Your task to perform on an android device: Open calendar and show me the third week of next month Image 0: 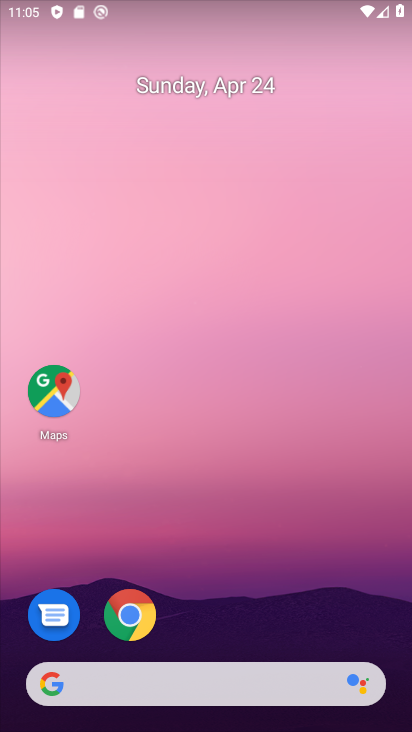
Step 0: drag from (211, 631) to (236, 77)
Your task to perform on an android device: Open calendar and show me the third week of next month Image 1: 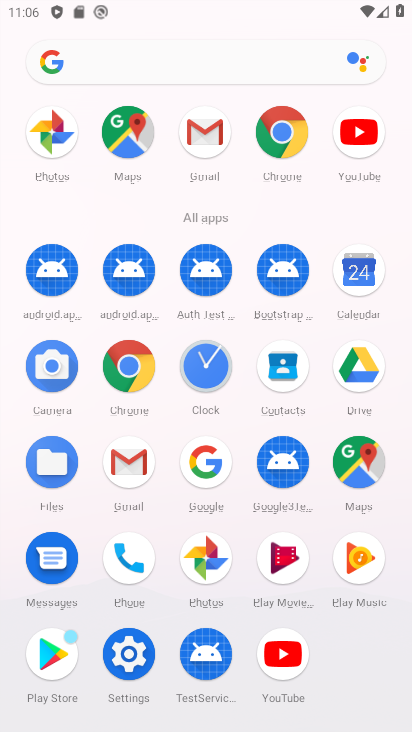
Step 1: click (358, 266)
Your task to perform on an android device: Open calendar and show me the third week of next month Image 2: 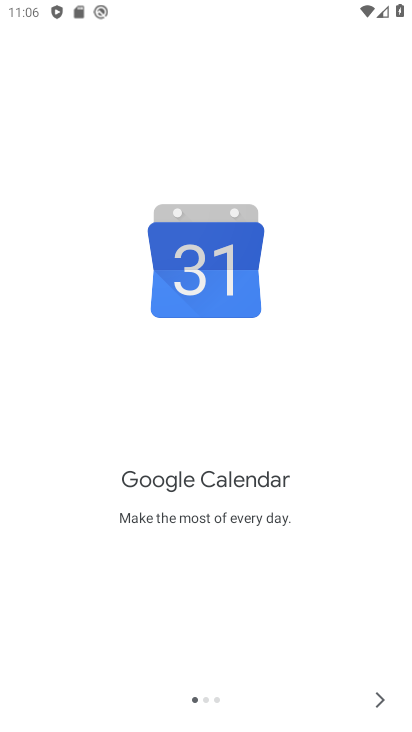
Step 2: click (373, 696)
Your task to perform on an android device: Open calendar and show me the third week of next month Image 3: 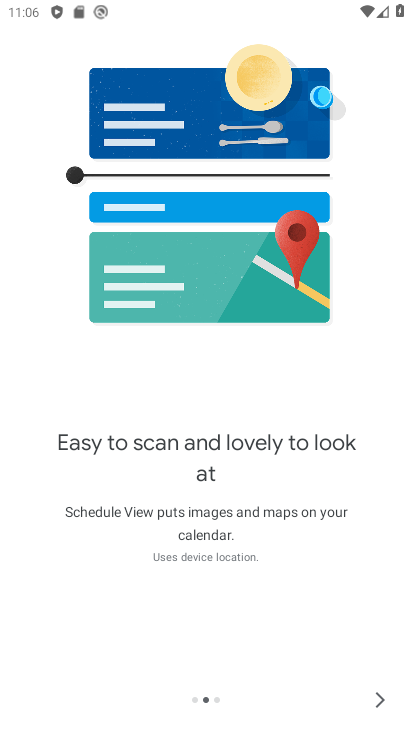
Step 3: click (373, 684)
Your task to perform on an android device: Open calendar and show me the third week of next month Image 4: 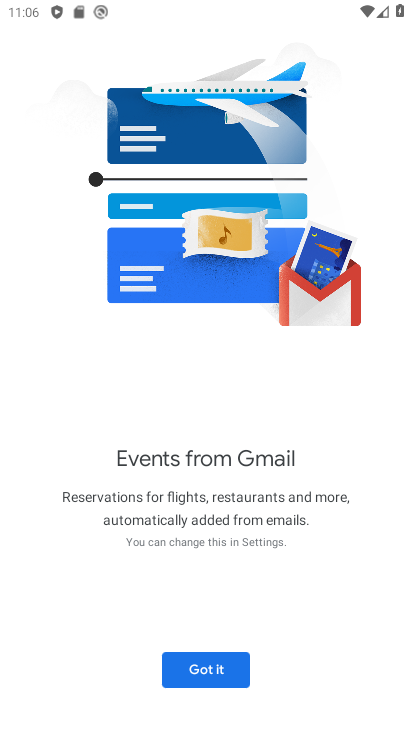
Step 4: click (206, 663)
Your task to perform on an android device: Open calendar and show me the third week of next month Image 5: 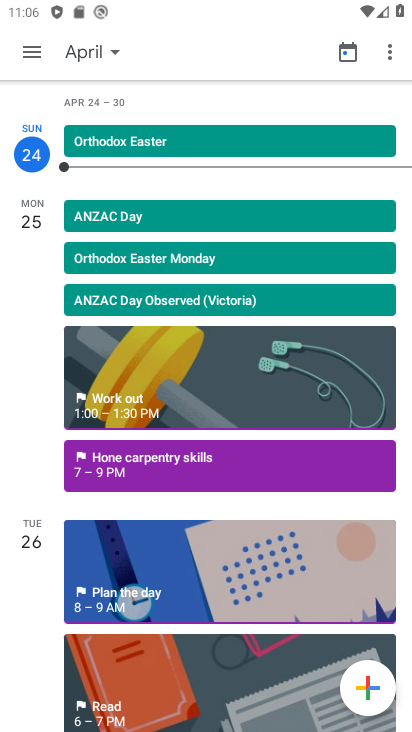
Step 5: click (36, 48)
Your task to perform on an android device: Open calendar and show me the third week of next month Image 6: 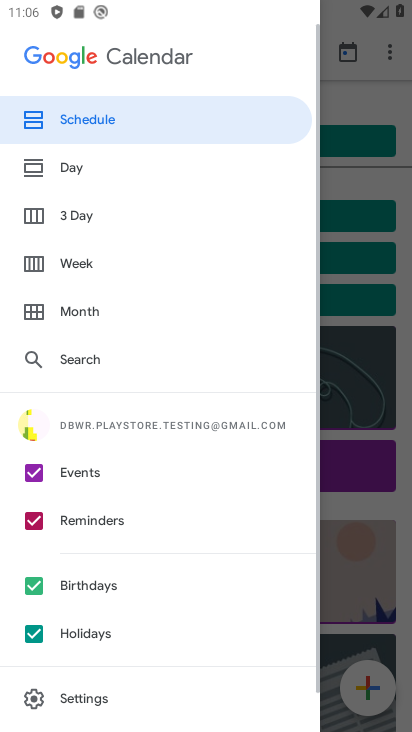
Step 6: click (87, 260)
Your task to perform on an android device: Open calendar and show me the third week of next month Image 7: 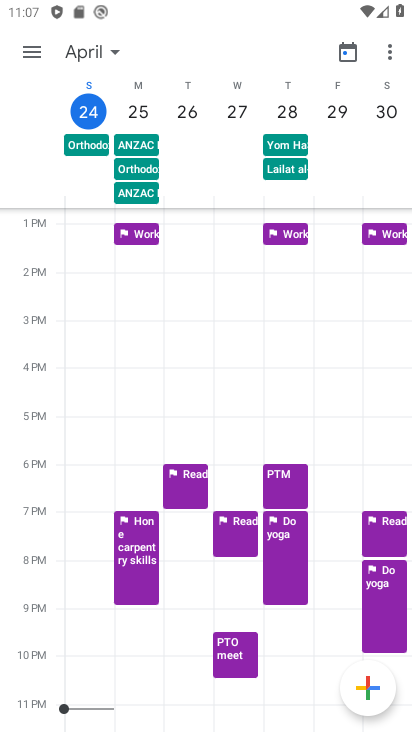
Step 7: drag from (350, 105) to (54, 94)
Your task to perform on an android device: Open calendar and show me the third week of next month Image 8: 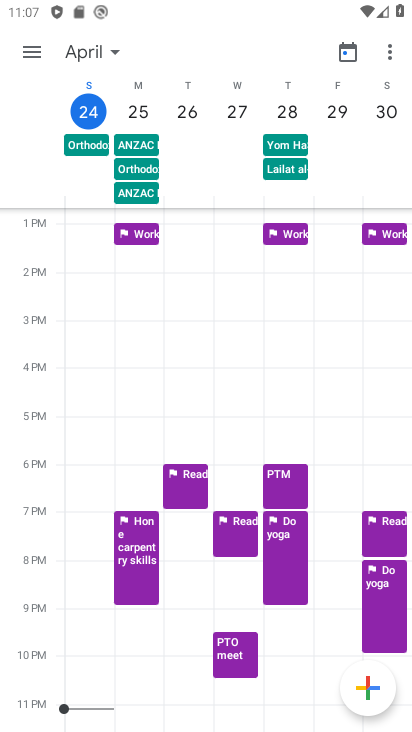
Step 8: drag from (390, 105) to (2, 110)
Your task to perform on an android device: Open calendar and show me the third week of next month Image 9: 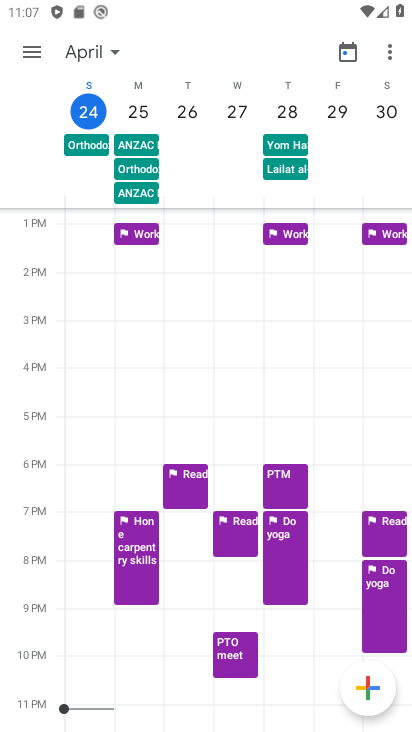
Step 9: drag from (386, 109) to (53, 106)
Your task to perform on an android device: Open calendar and show me the third week of next month Image 10: 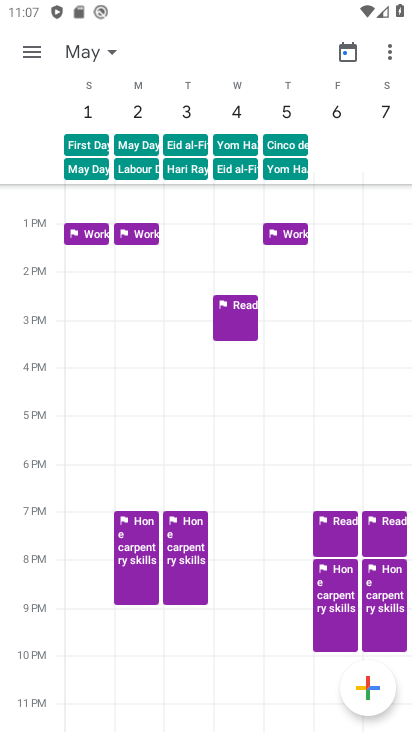
Step 10: drag from (385, 98) to (0, 85)
Your task to perform on an android device: Open calendar and show me the third week of next month Image 11: 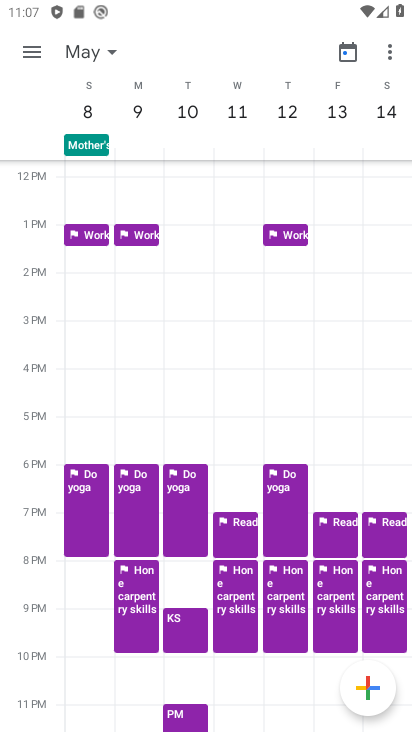
Step 11: drag from (391, 105) to (0, 131)
Your task to perform on an android device: Open calendar and show me the third week of next month Image 12: 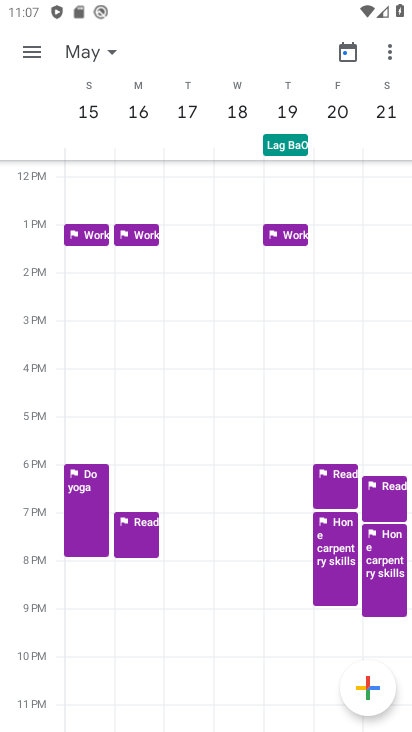
Step 12: click (84, 105)
Your task to perform on an android device: Open calendar and show me the third week of next month Image 13: 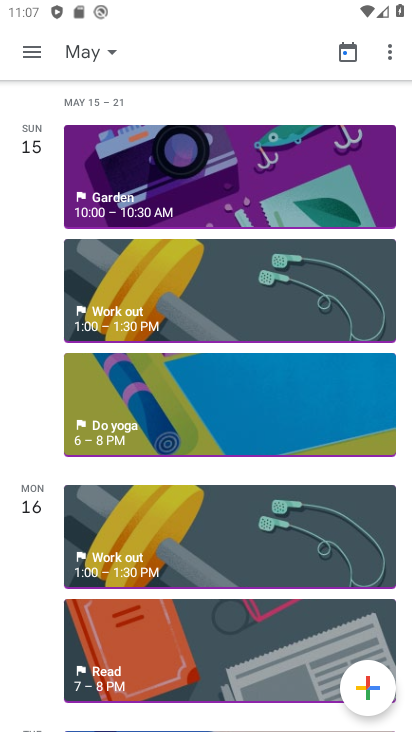
Step 13: task complete